Your task to perform on an android device: Open Google Image 0: 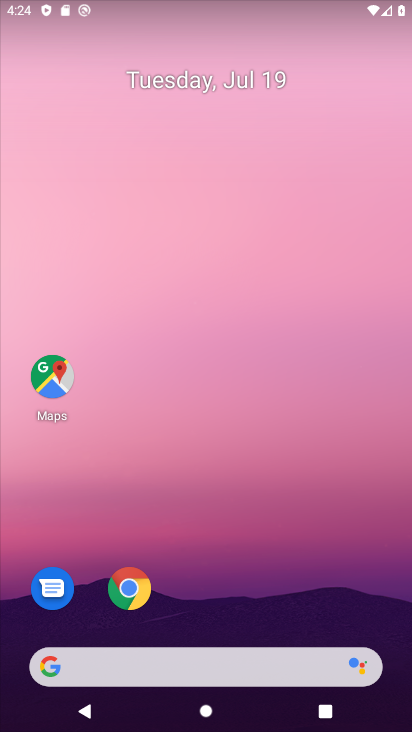
Step 0: drag from (185, 651) to (261, 145)
Your task to perform on an android device: Open Google Image 1: 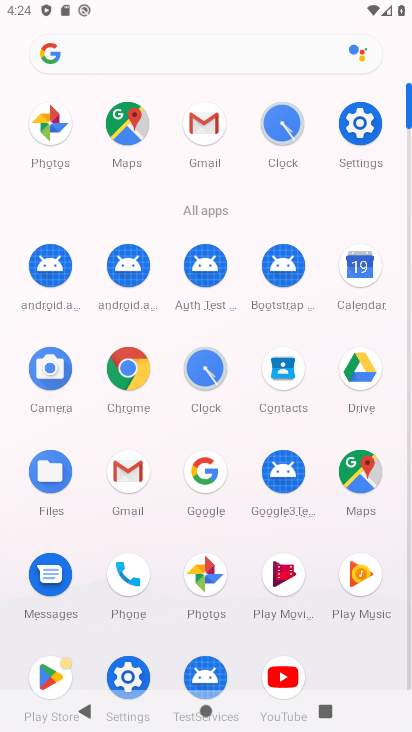
Step 1: click (193, 500)
Your task to perform on an android device: Open Google Image 2: 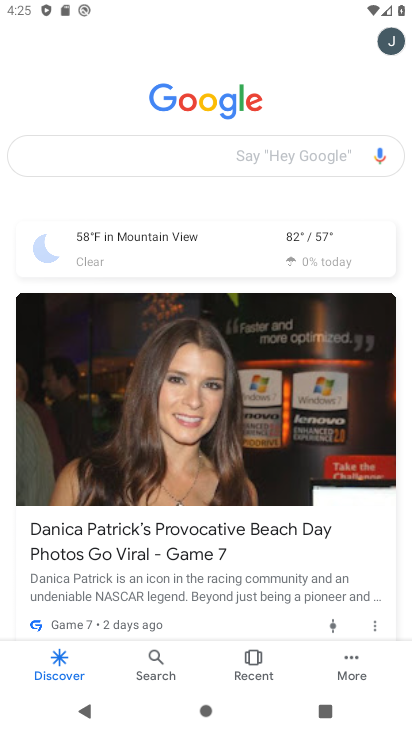
Step 2: task complete